Your task to perform on an android device: allow notifications from all sites in the chrome app Image 0: 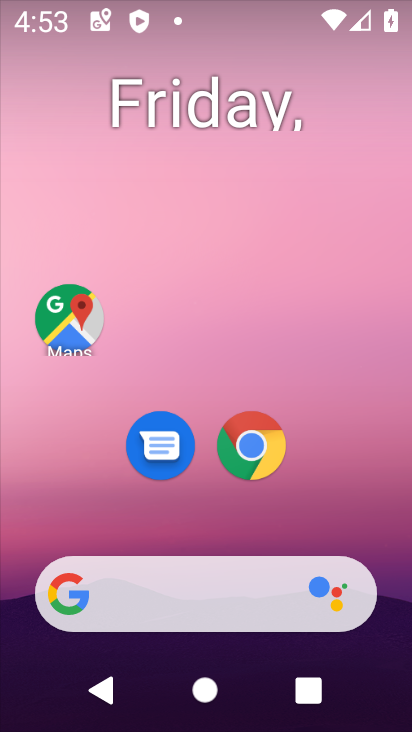
Step 0: click (249, 465)
Your task to perform on an android device: allow notifications from all sites in the chrome app Image 1: 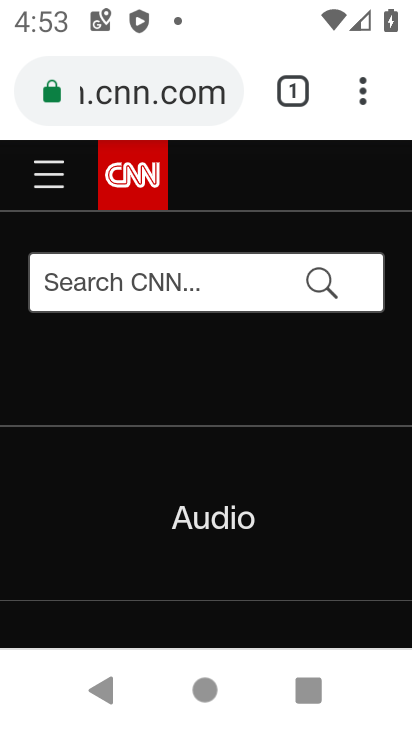
Step 1: click (368, 96)
Your task to perform on an android device: allow notifications from all sites in the chrome app Image 2: 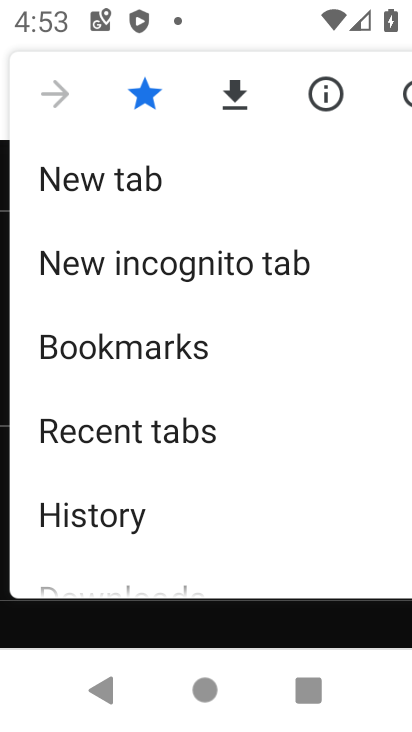
Step 2: drag from (192, 545) to (201, 278)
Your task to perform on an android device: allow notifications from all sites in the chrome app Image 3: 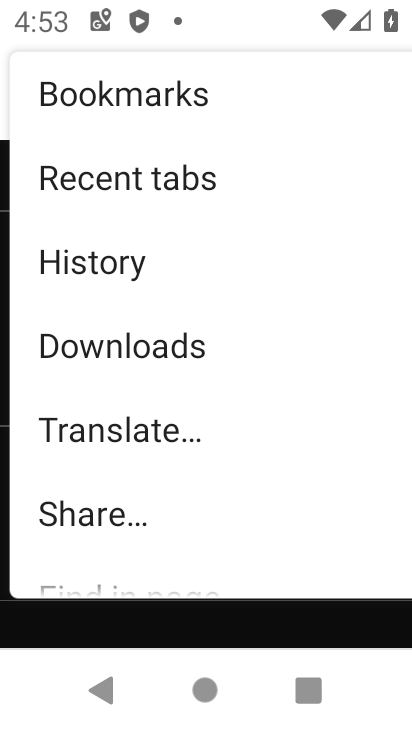
Step 3: drag from (132, 580) to (119, 220)
Your task to perform on an android device: allow notifications from all sites in the chrome app Image 4: 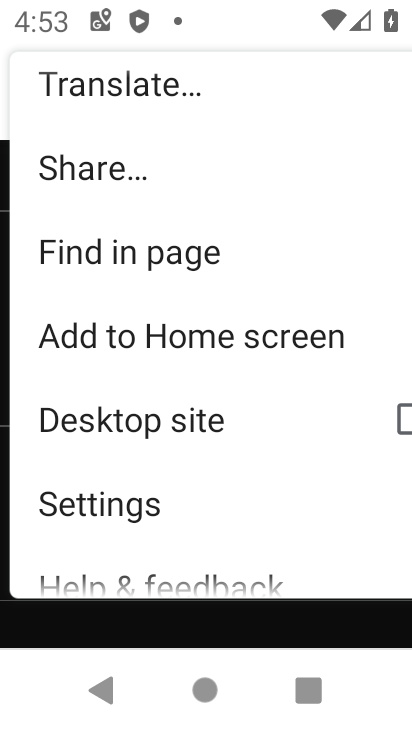
Step 4: click (181, 530)
Your task to perform on an android device: allow notifications from all sites in the chrome app Image 5: 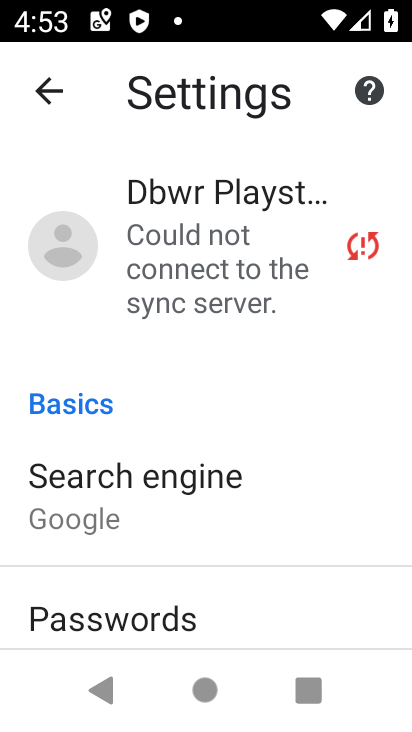
Step 5: drag from (213, 535) to (248, 283)
Your task to perform on an android device: allow notifications from all sites in the chrome app Image 6: 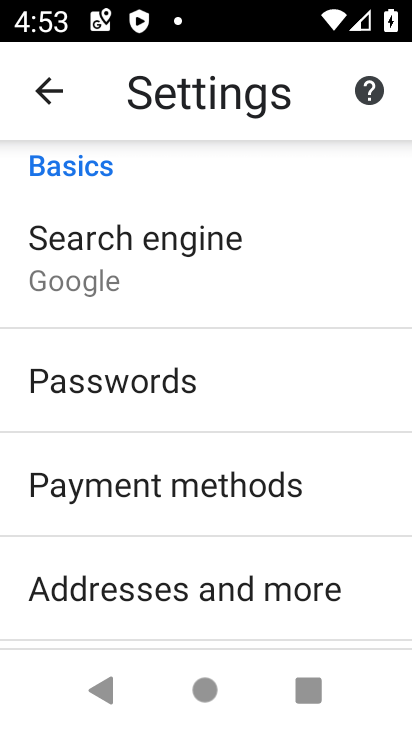
Step 6: drag from (229, 582) to (233, 334)
Your task to perform on an android device: allow notifications from all sites in the chrome app Image 7: 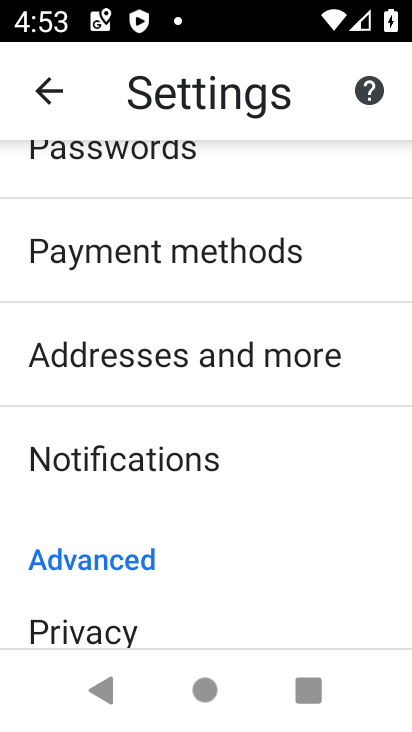
Step 7: click (198, 467)
Your task to perform on an android device: allow notifications from all sites in the chrome app Image 8: 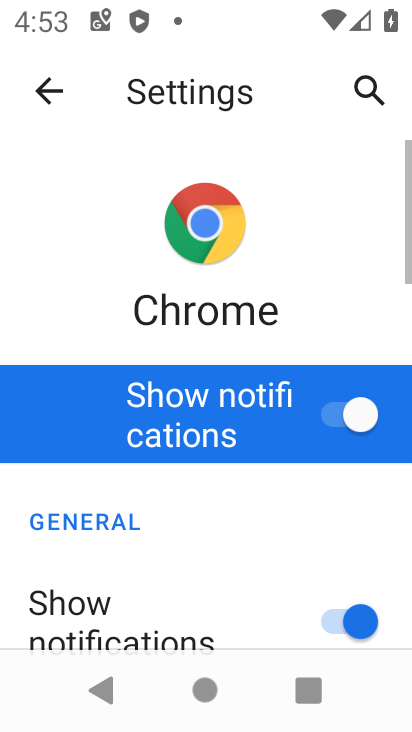
Step 8: task complete